Your task to perform on an android device: turn off data saver in the chrome app Image 0: 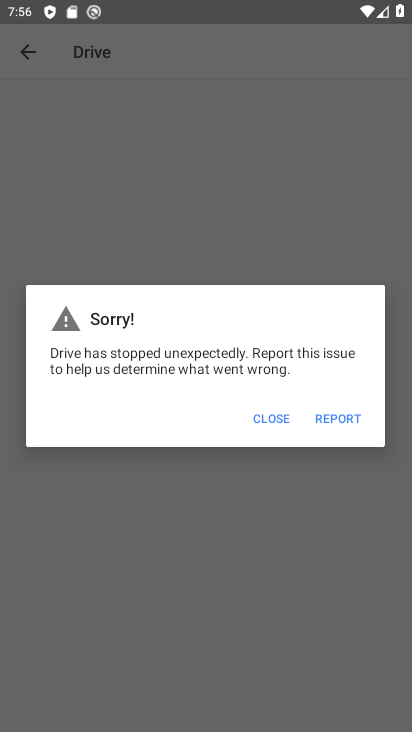
Step 0: press home button
Your task to perform on an android device: turn off data saver in the chrome app Image 1: 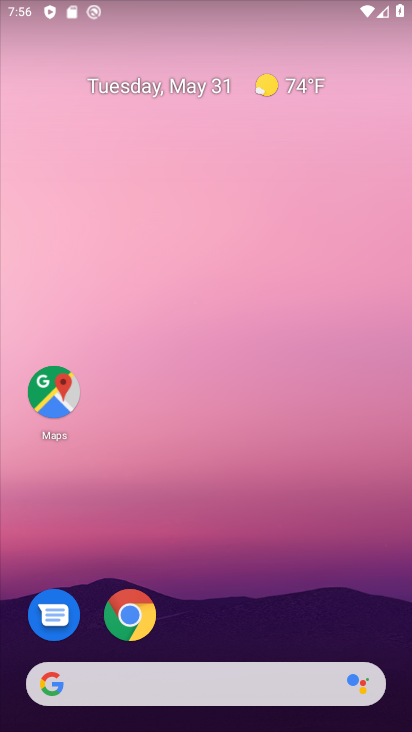
Step 1: click (143, 626)
Your task to perform on an android device: turn off data saver in the chrome app Image 2: 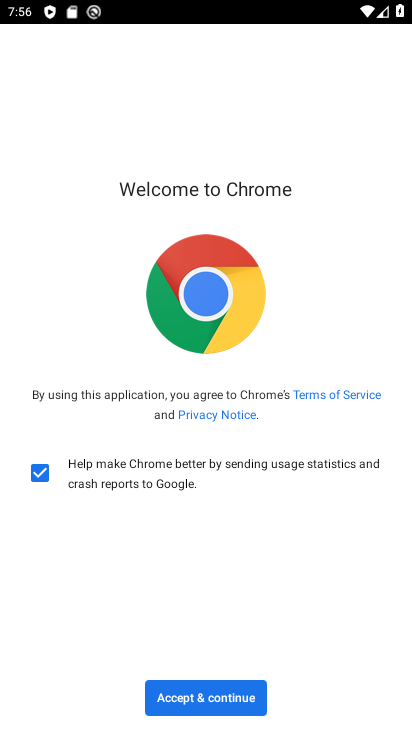
Step 2: click (194, 692)
Your task to perform on an android device: turn off data saver in the chrome app Image 3: 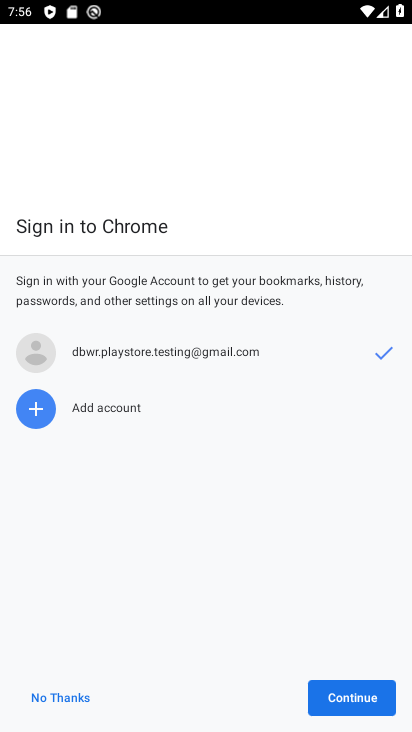
Step 3: click (337, 699)
Your task to perform on an android device: turn off data saver in the chrome app Image 4: 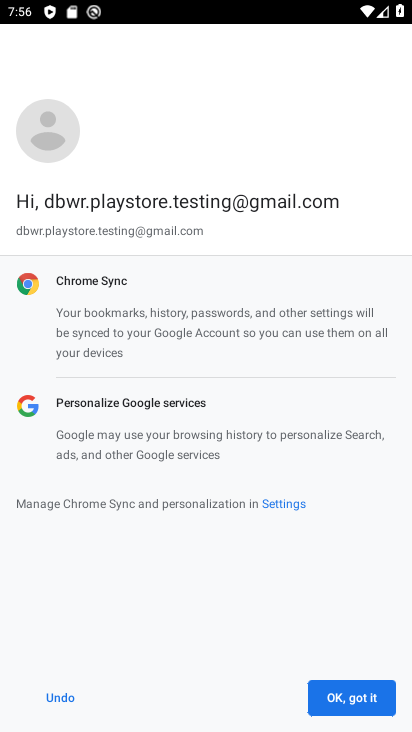
Step 4: click (339, 695)
Your task to perform on an android device: turn off data saver in the chrome app Image 5: 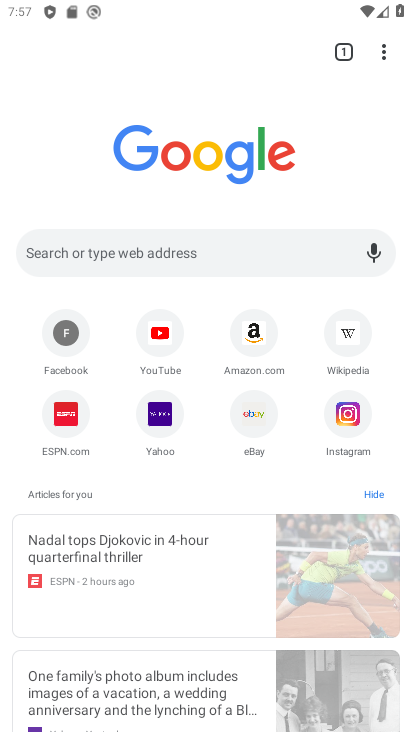
Step 5: drag from (381, 49) to (209, 423)
Your task to perform on an android device: turn off data saver in the chrome app Image 6: 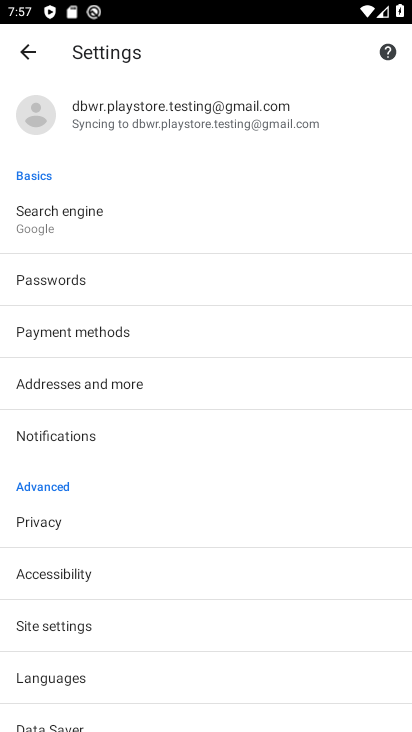
Step 6: drag from (144, 680) to (189, 421)
Your task to perform on an android device: turn off data saver in the chrome app Image 7: 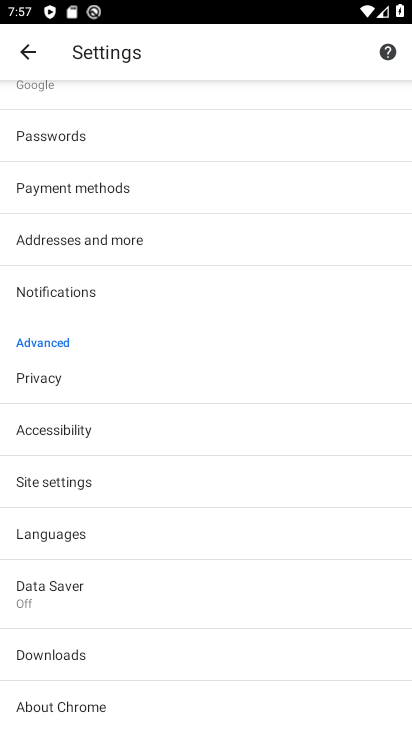
Step 7: click (102, 585)
Your task to perform on an android device: turn off data saver in the chrome app Image 8: 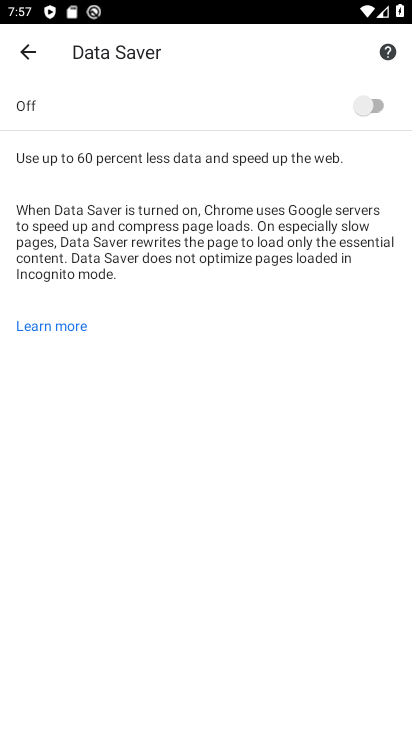
Step 8: task complete